Your task to perform on an android device: Clear the shopping cart on amazon. Add usb-a to usb-b to the cart on amazon Image 0: 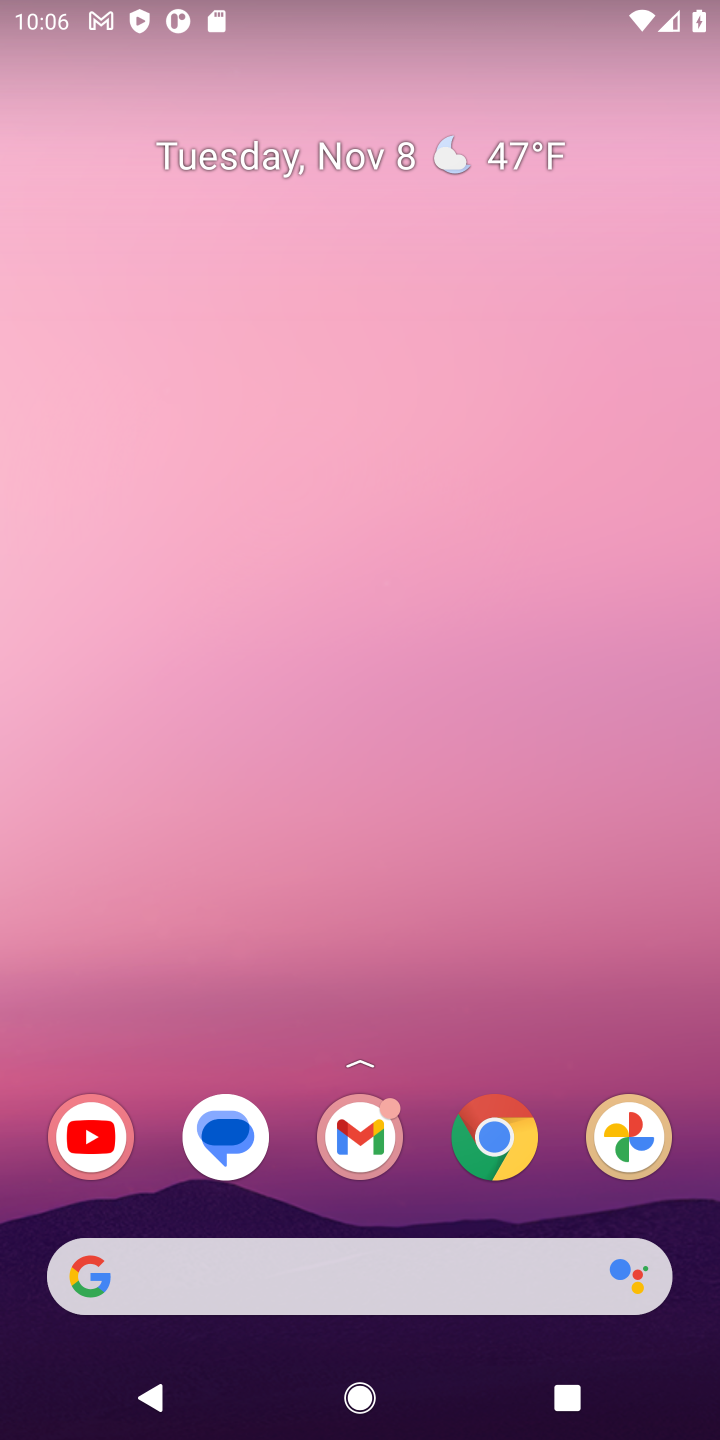
Step 0: click (495, 1138)
Your task to perform on an android device: Clear the shopping cart on amazon. Add usb-a to usb-b to the cart on amazon Image 1: 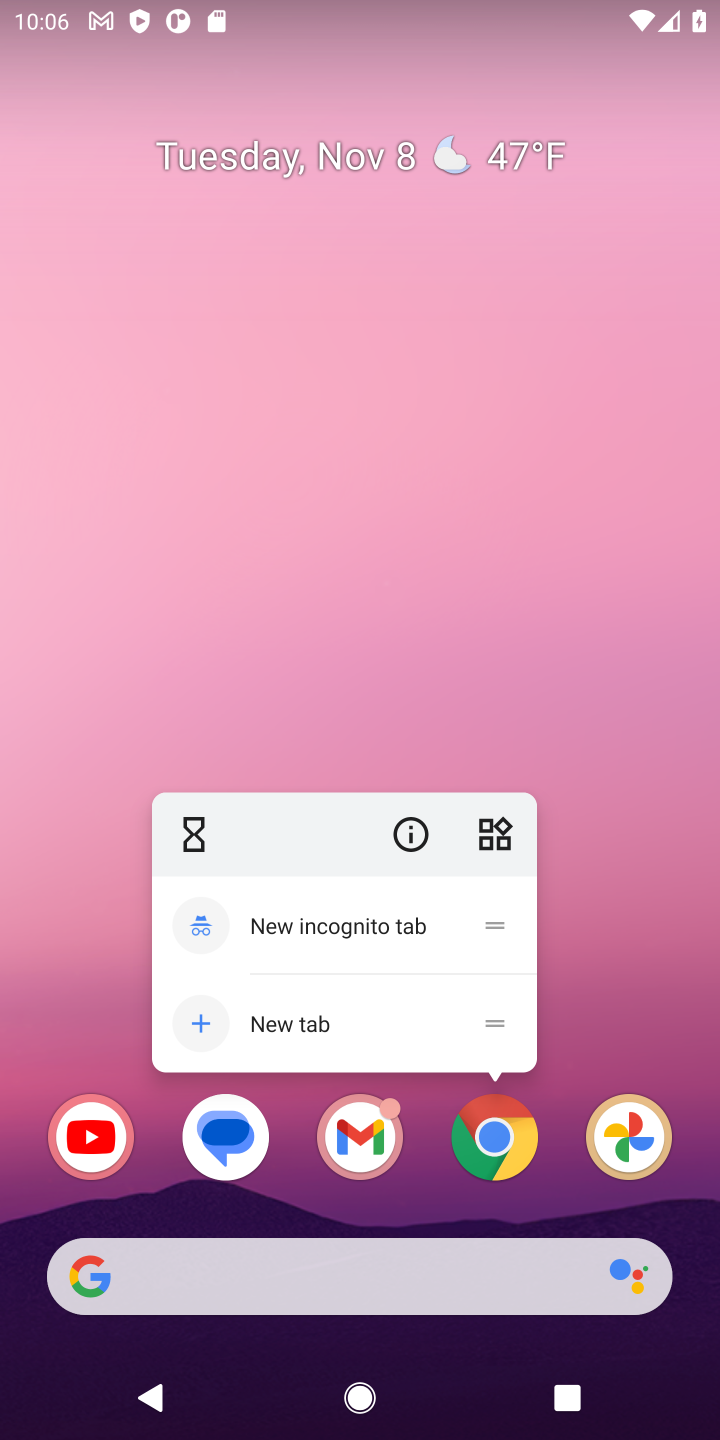
Step 1: click (495, 1138)
Your task to perform on an android device: Clear the shopping cart on amazon. Add usb-a to usb-b to the cart on amazon Image 2: 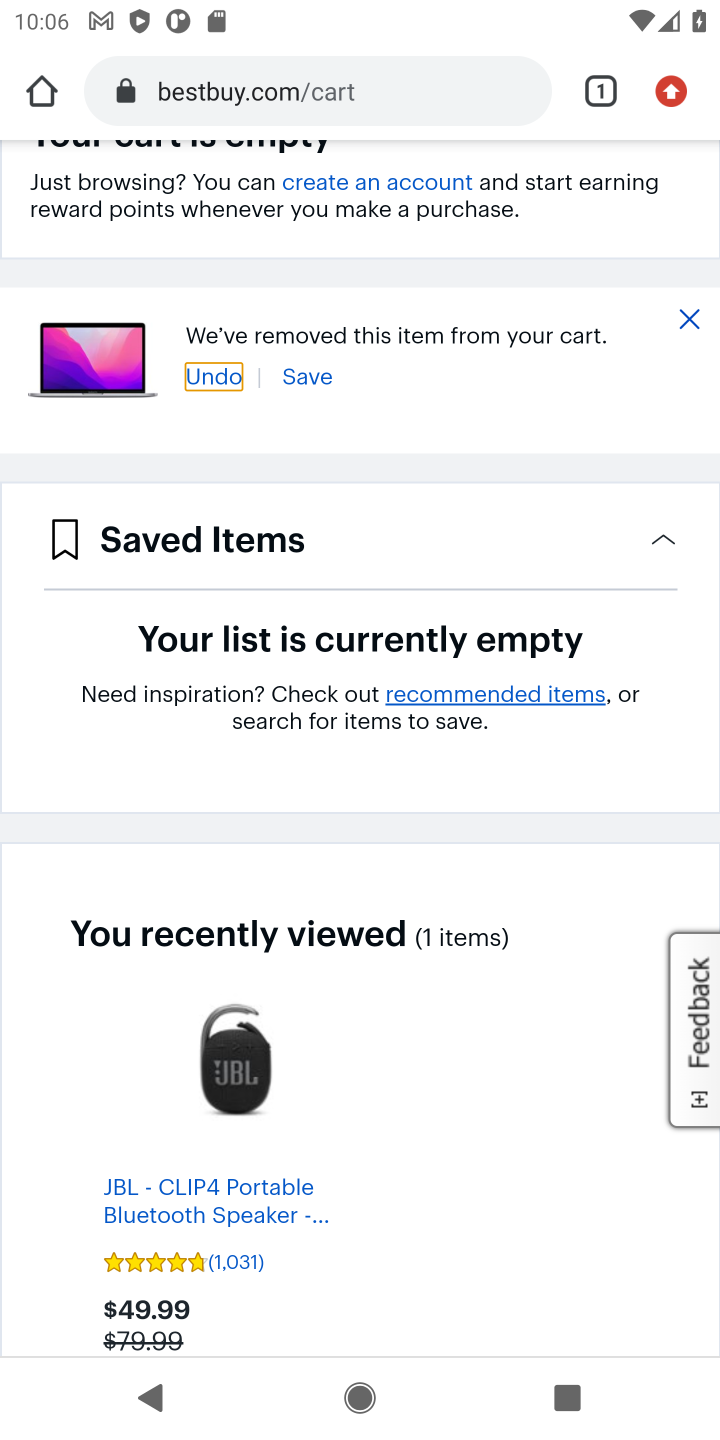
Step 2: click (380, 105)
Your task to perform on an android device: Clear the shopping cart on amazon. Add usb-a to usb-b to the cart on amazon Image 3: 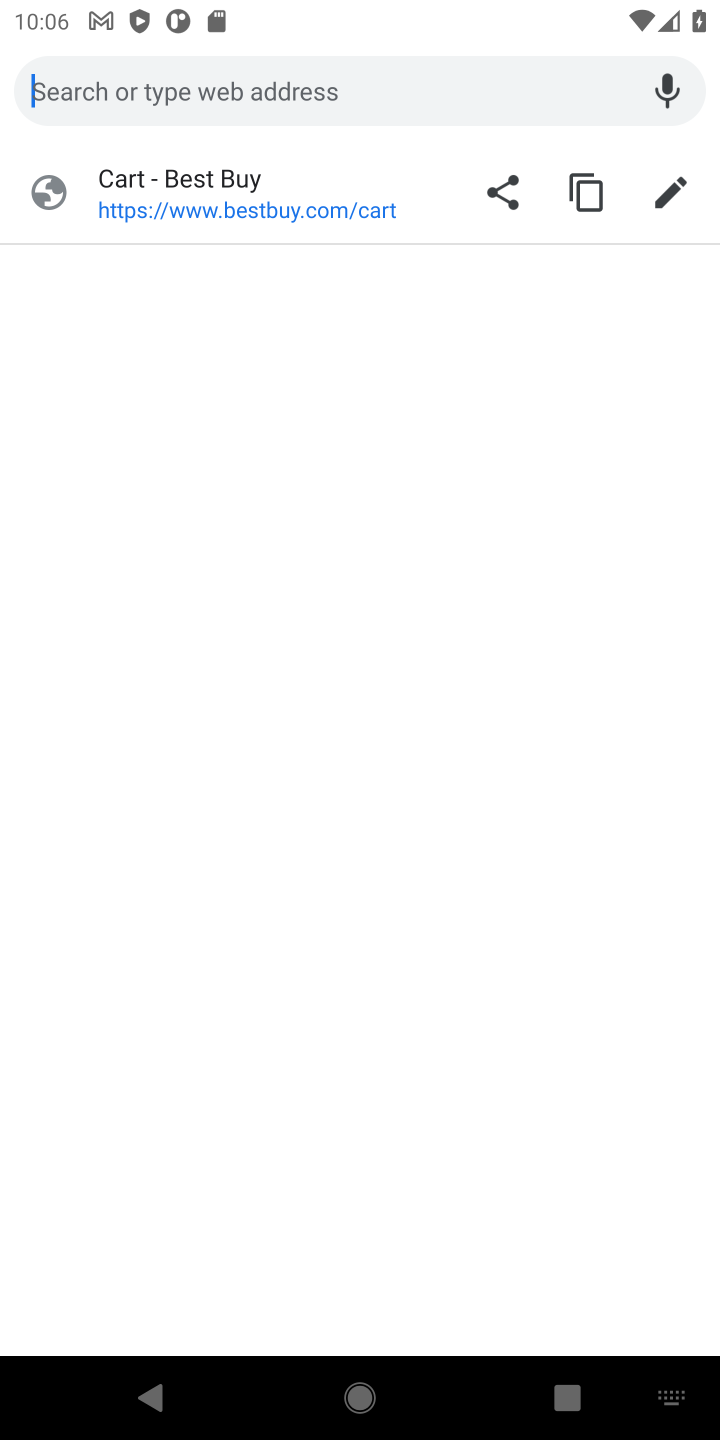
Step 3: type "amazon"
Your task to perform on an android device: Clear the shopping cart on amazon. Add usb-a to usb-b to the cart on amazon Image 4: 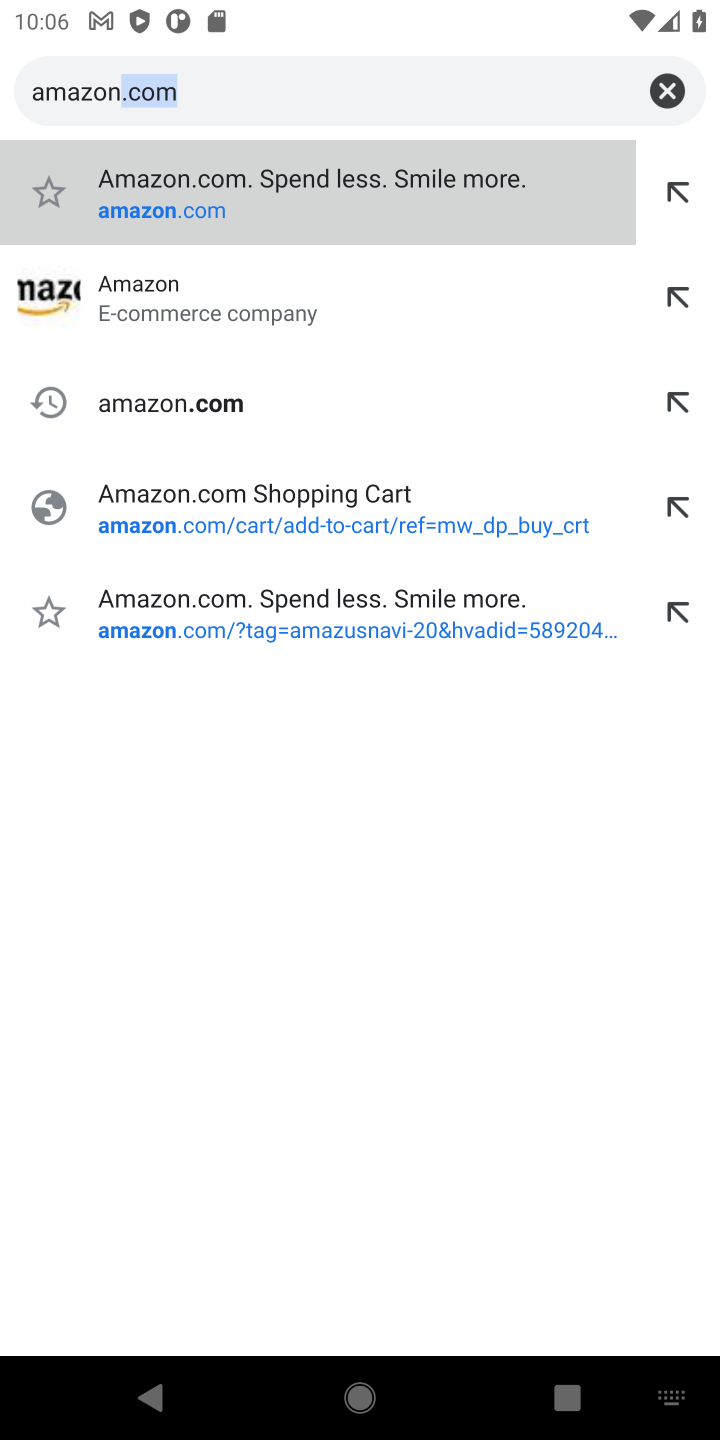
Step 4: click (196, 209)
Your task to perform on an android device: Clear the shopping cart on amazon. Add usb-a to usb-b to the cart on amazon Image 5: 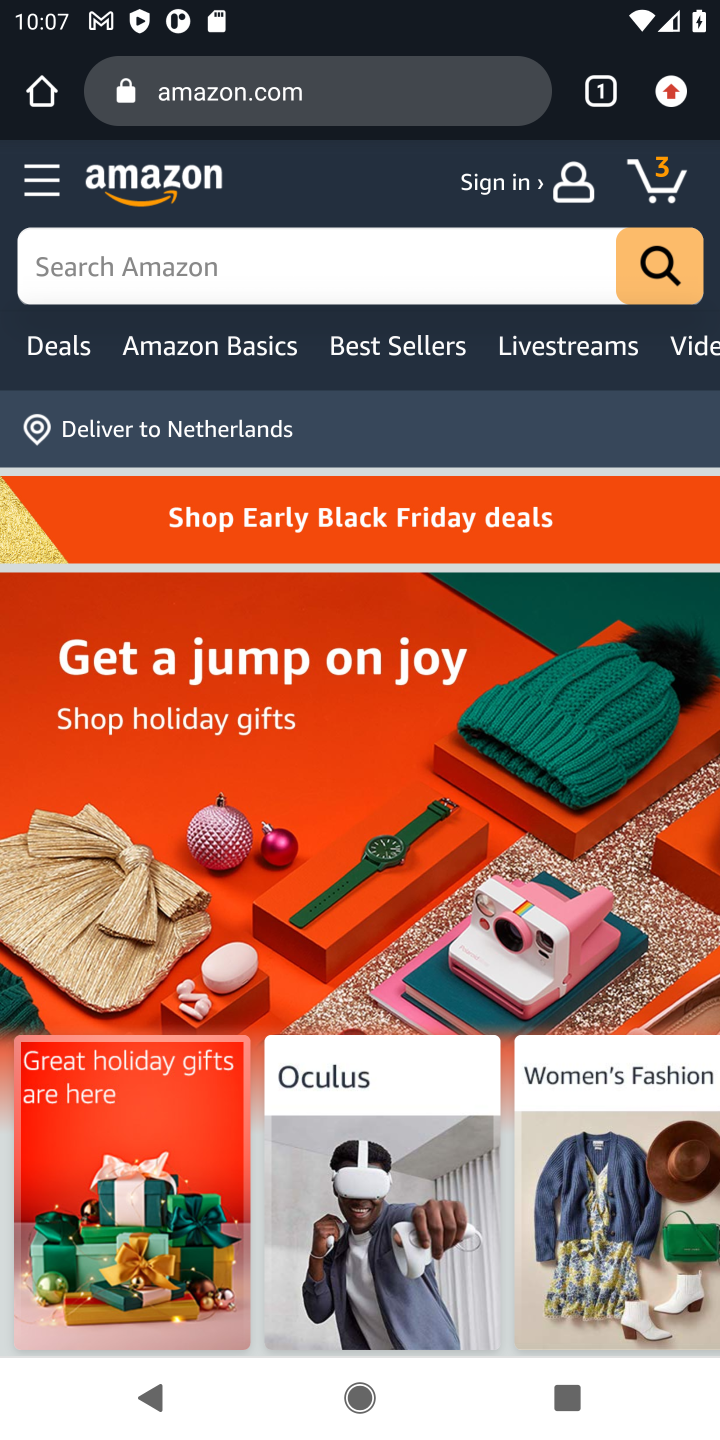
Step 5: click (660, 162)
Your task to perform on an android device: Clear the shopping cart on amazon. Add usb-a to usb-b to the cart on amazon Image 6: 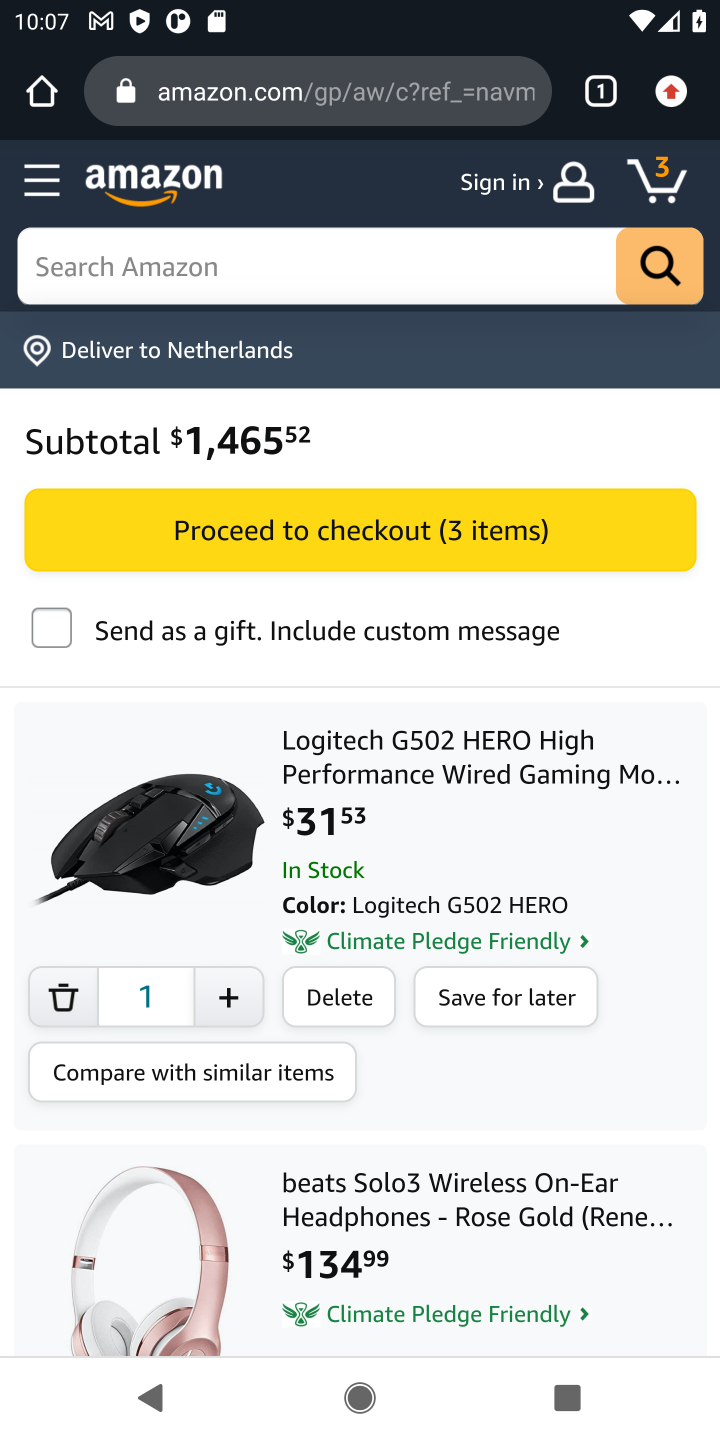
Step 6: click (338, 994)
Your task to perform on an android device: Clear the shopping cart on amazon. Add usb-a to usb-b to the cart on amazon Image 7: 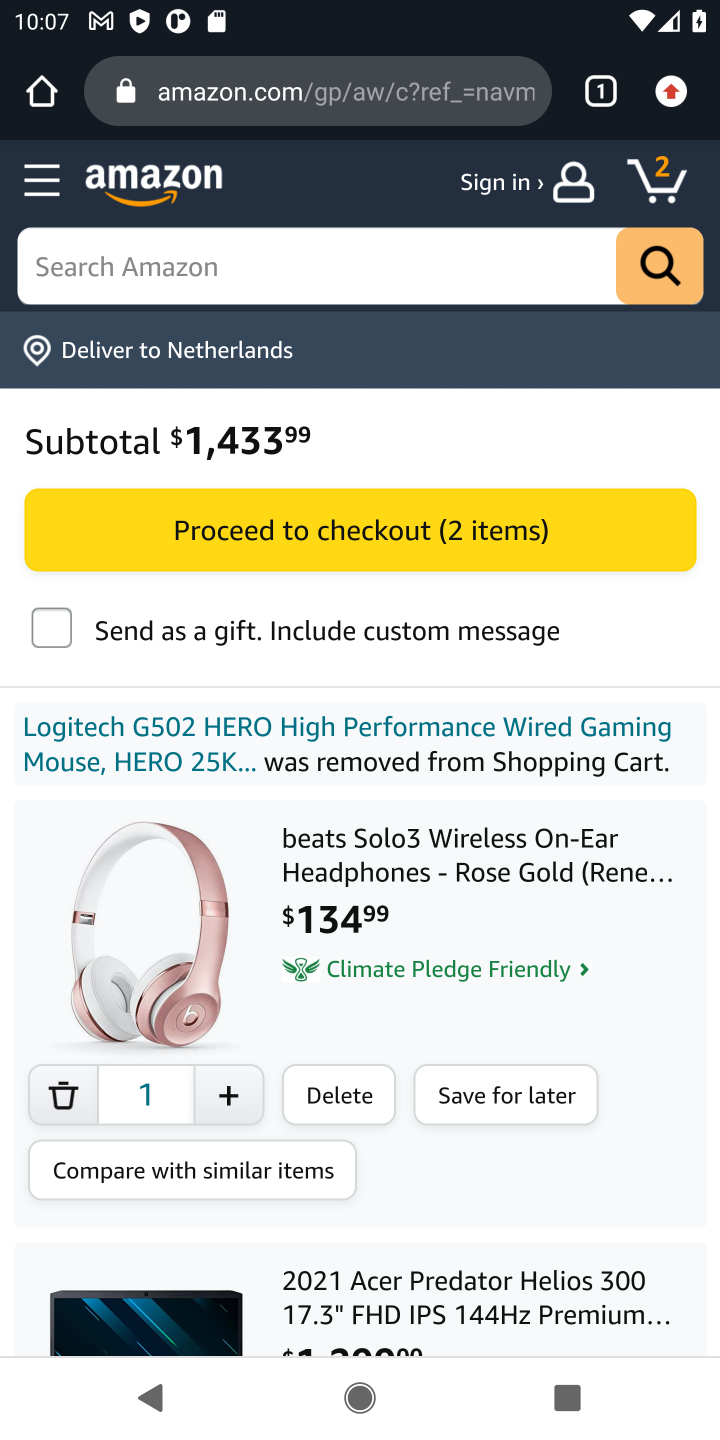
Step 7: click (344, 1088)
Your task to perform on an android device: Clear the shopping cart on amazon. Add usb-a to usb-b to the cart on amazon Image 8: 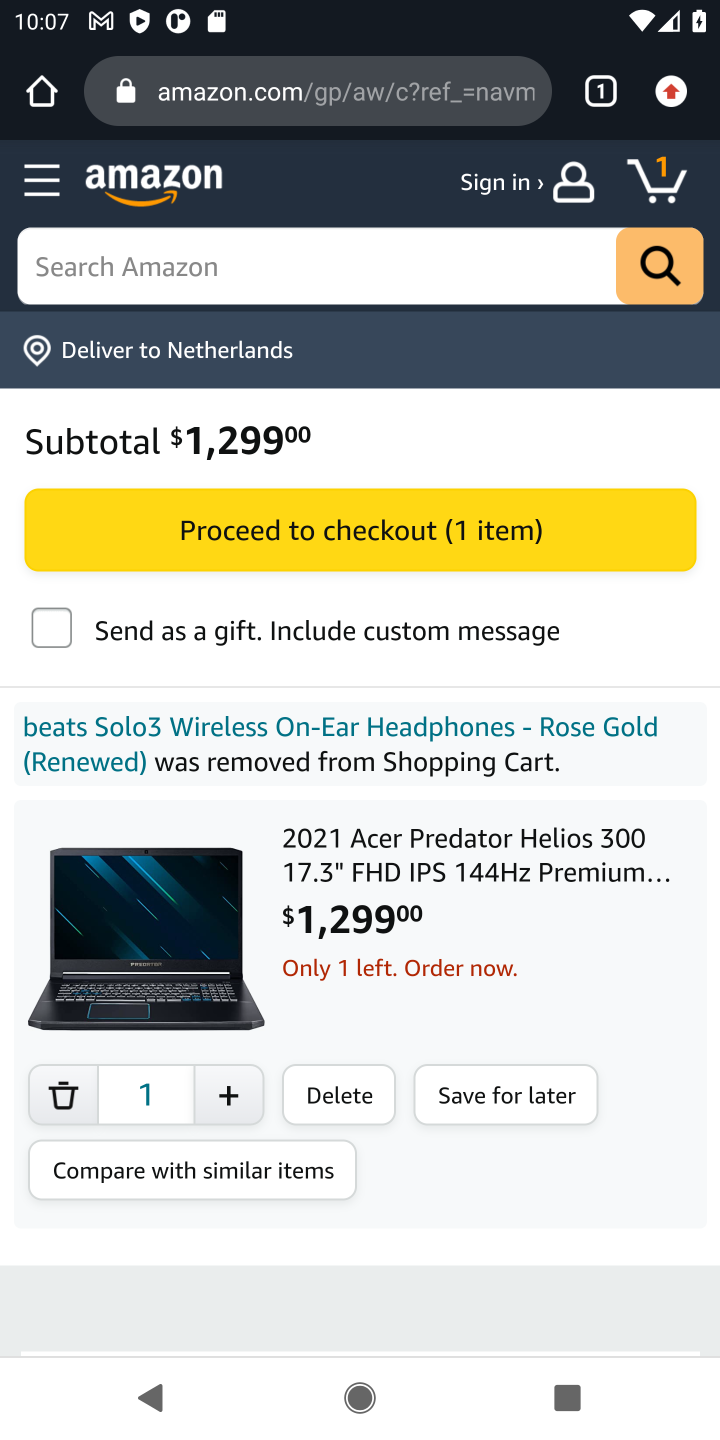
Step 8: click (344, 1088)
Your task to perform on an android device: Clear the shopping cart on amazon. Add usb-a to usb-b to the cart on amazon Image 9: 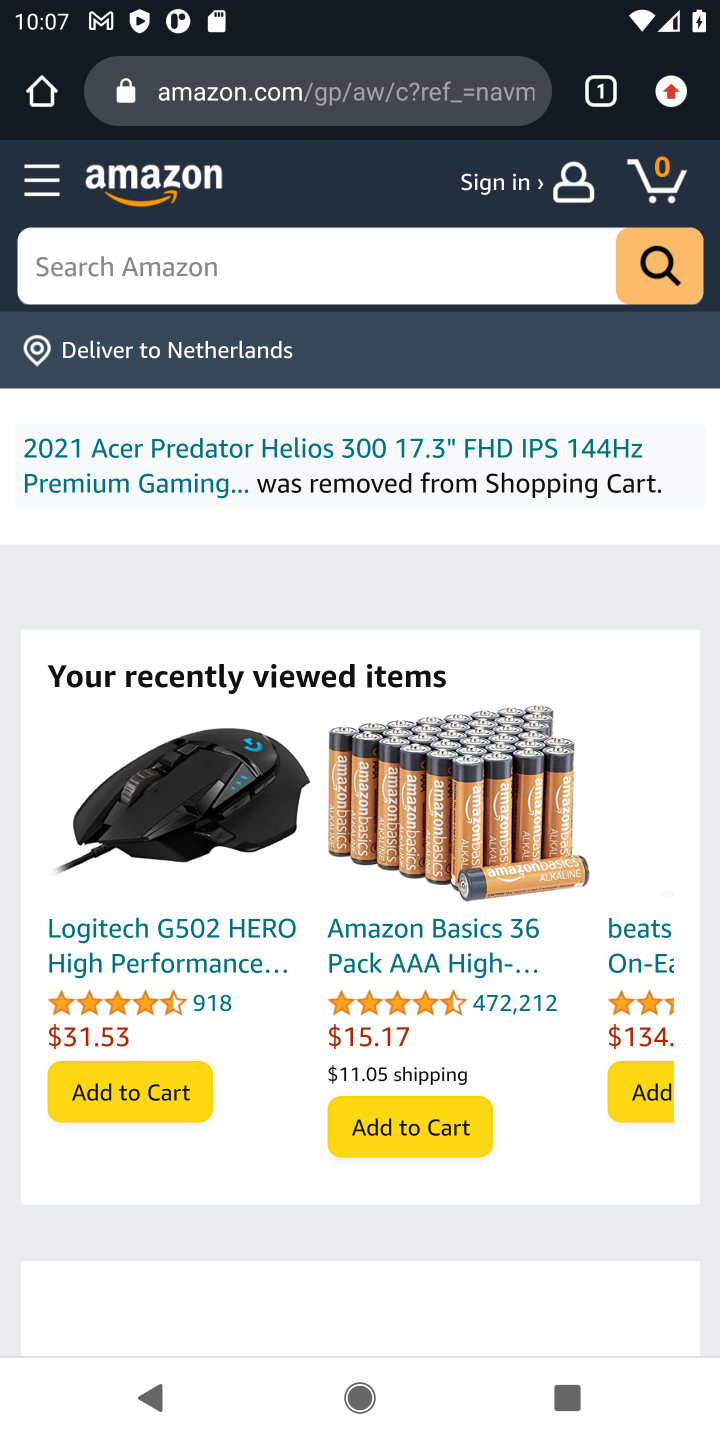
Step 9: click (359, 256)
Your task to perform on an android device: Clear the shopping cart on amazon. Add usb-a to usb-b to the cart on amazon Image 10: 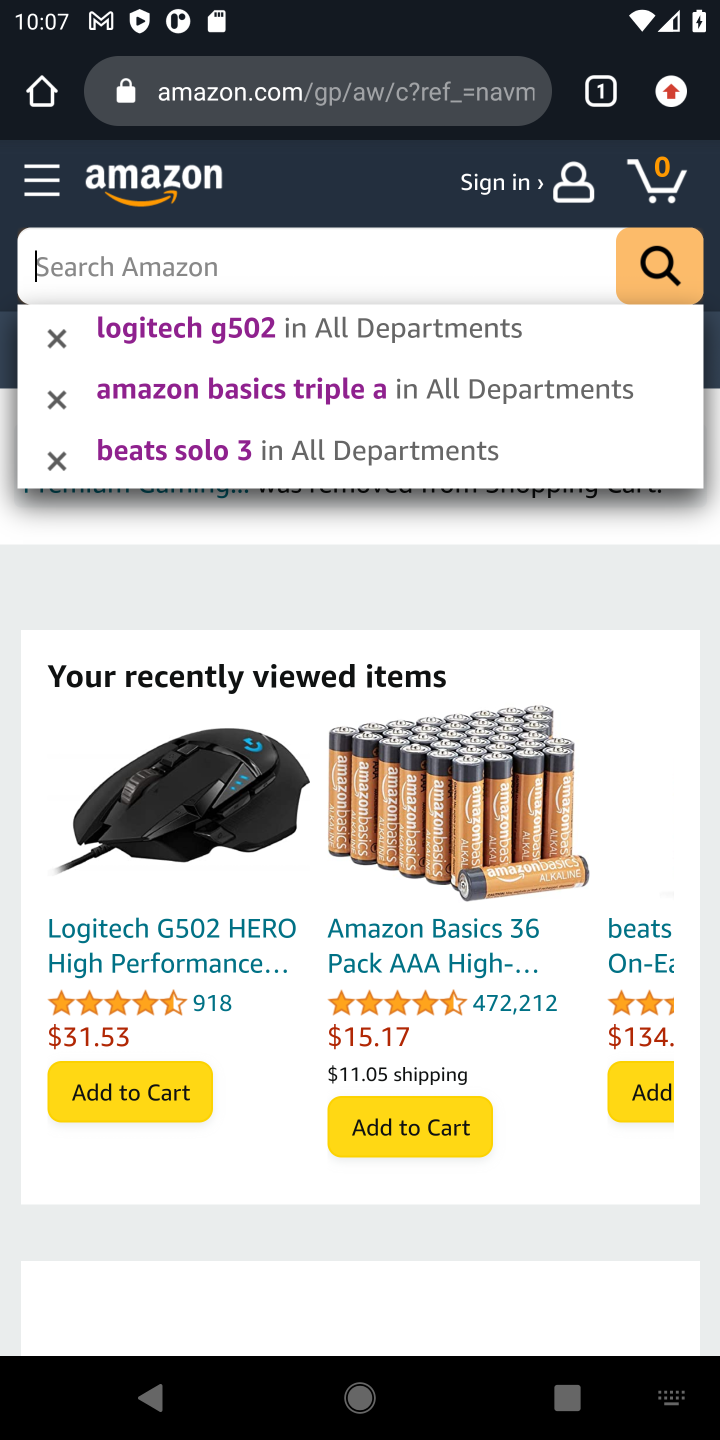
Step 10: type "usb-a to usb-b "
Your task to perform on an android device: Clear the shopping cart on amazon. Add usb-a to usb-b to the cart on amazon Image 11: 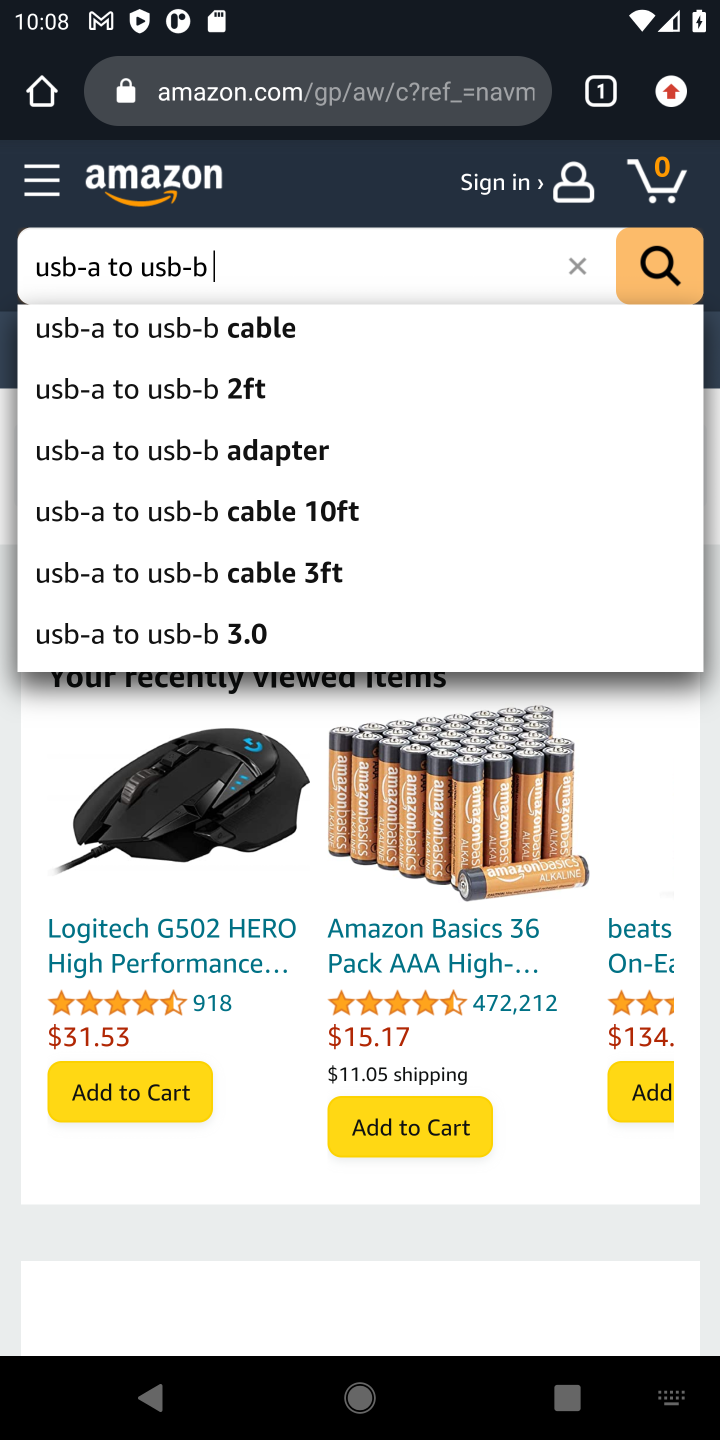
Step 11: click (672, 278)
Your task to perform on an android device: Clear the shopping cart on amazon. Add usb-a to usb-b to the cart on amazon Image 12: 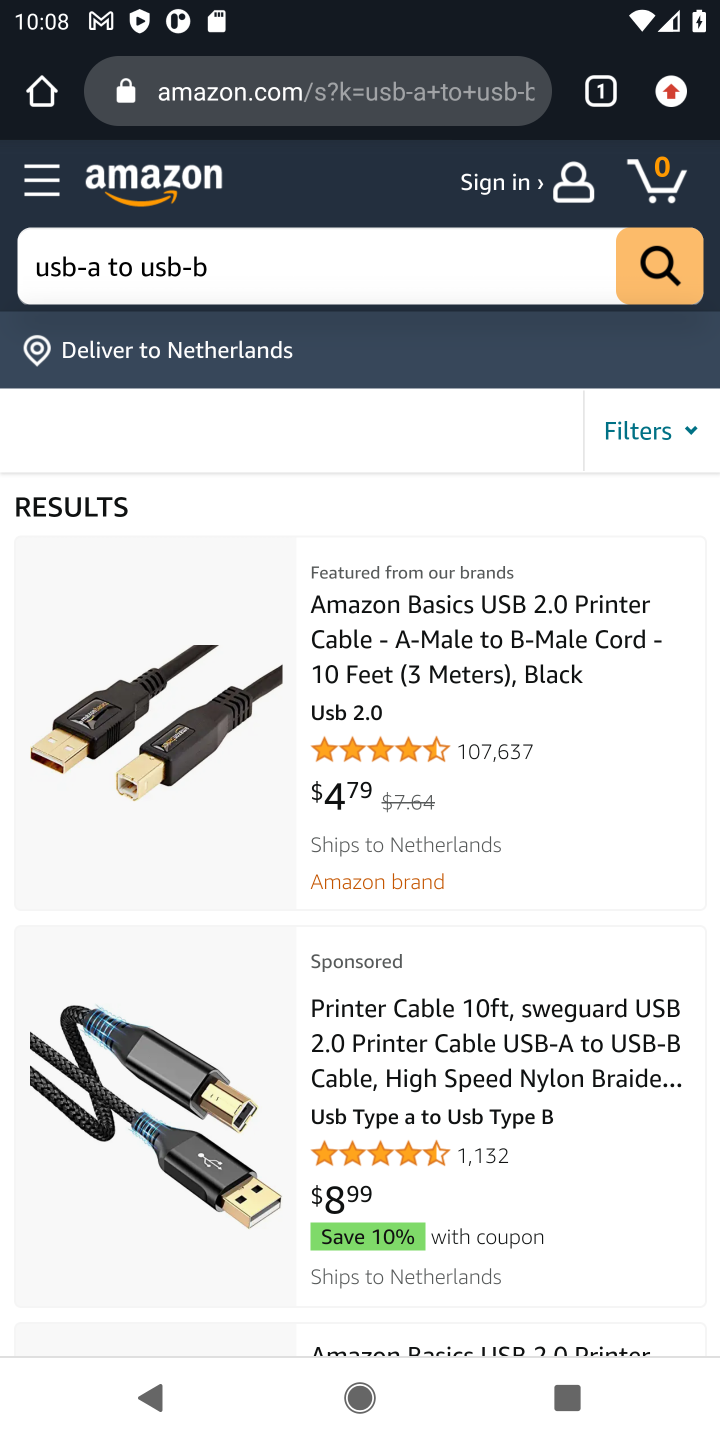
Step 12: drag from (523, 1302) to (526, 781)
Your task to perform on an android device: Clear the shopping cart on amazon. Add usb-a to usb-b to the cart on amazon Image 13: 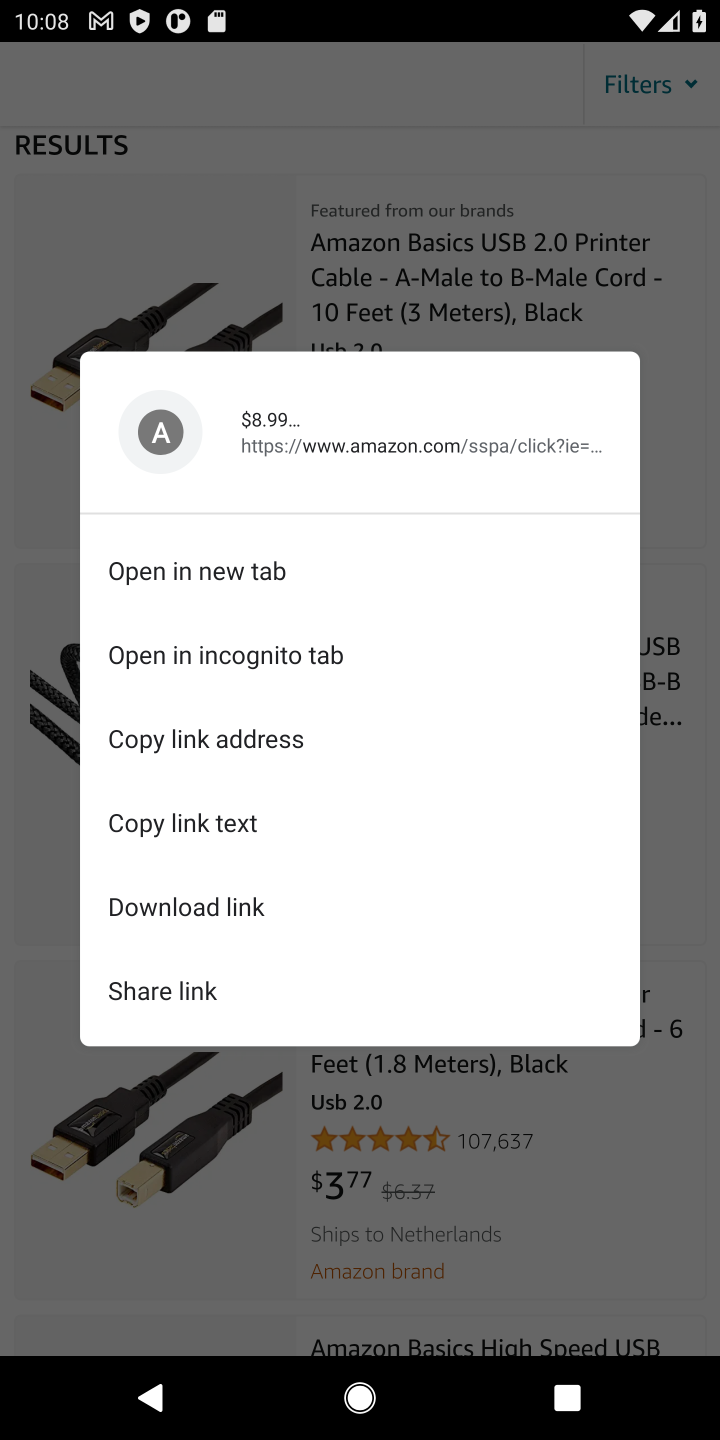
Step 13: click (609, 206)
Your task to perform on an android device: Clear the shopping cart on amazon. Add usb-a to usb-b to the cart on amazon Image 14: 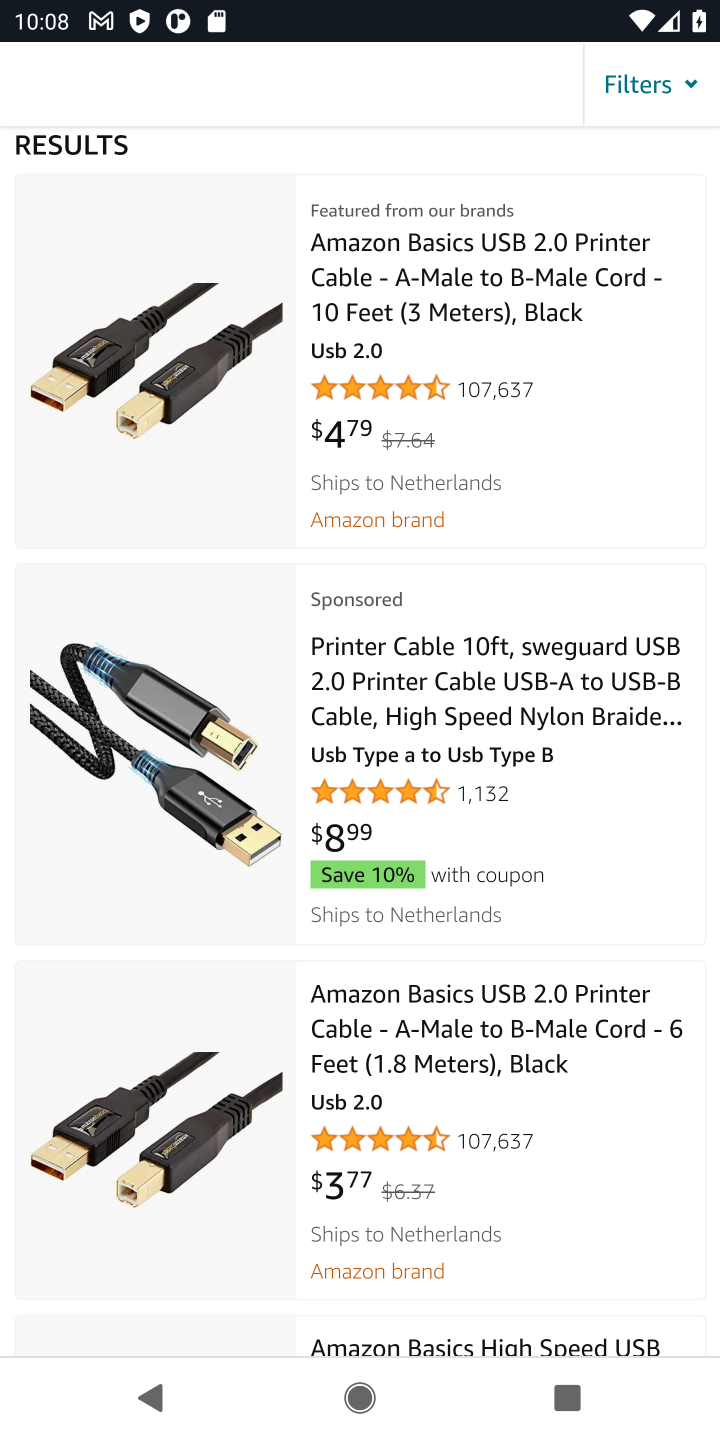
Step 14: click (479, 1046)
Your task to perform on an android device: Clear the shopping cart on amazon. Add usb-a to usb-b to the cart on amazon Image 15: 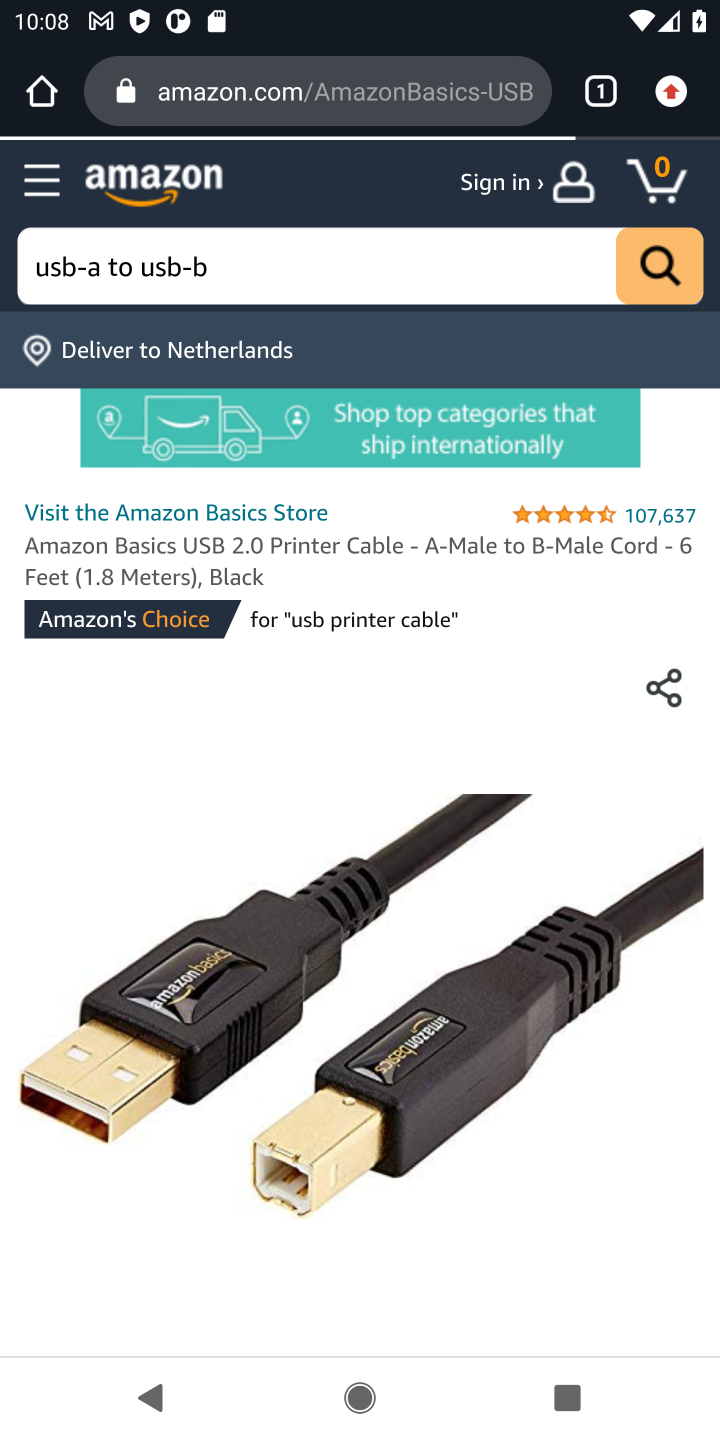
Step 15: drag from (440, 1216) to (420, 668)
Your task to perform on an android device: Clear the shopping cart on amazon. Add usb-a to usb-b to the cart on amazon Image 16: 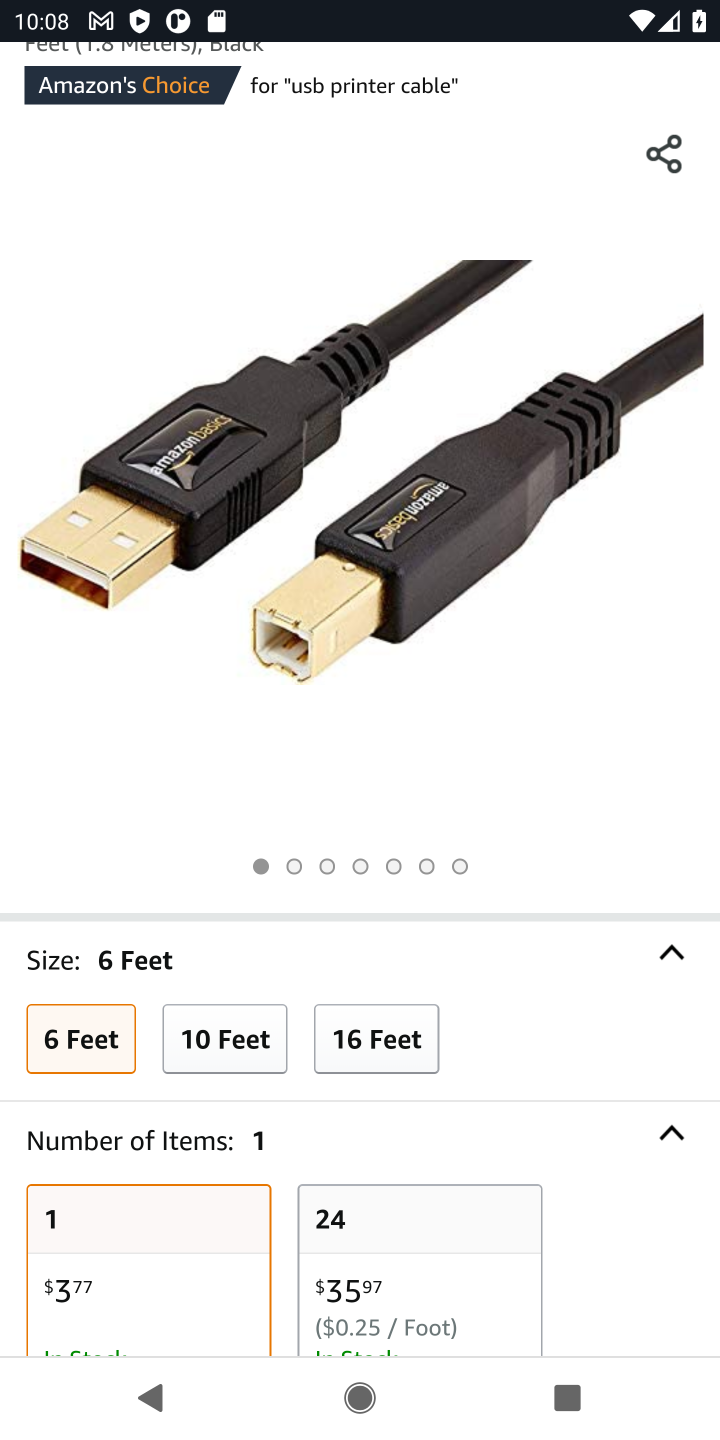
Step 16: drag from (498, 844) to (384, 166)
Your task to perform on an android device: Clear the shopping cart on amazon. Add usb-a to usb-b to the cart on amazon Image 17: 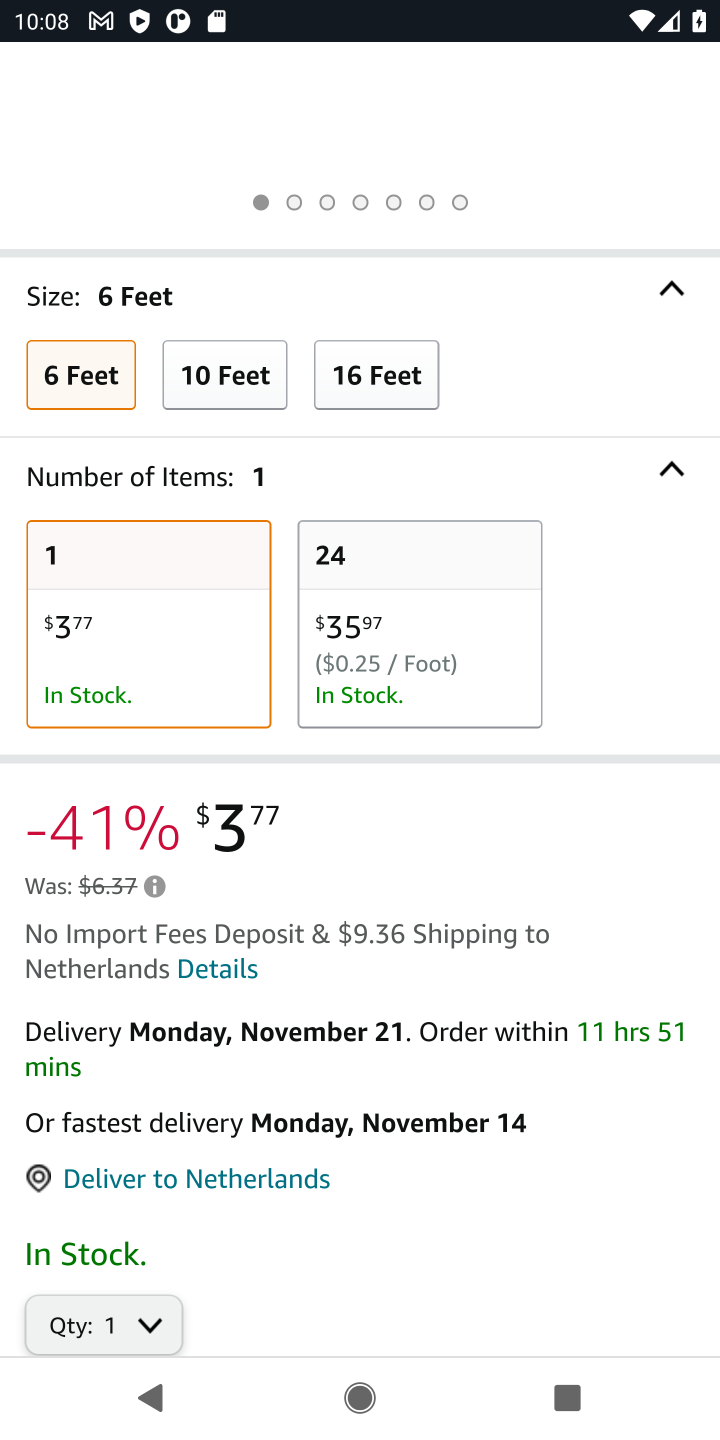
Step 17: drag from (384, 1077) to (348, 424)
Your task to perform on an android device: Clear the shopping cart on amazon. Add usb-a to usb-b to the cart on amazon Image 18: 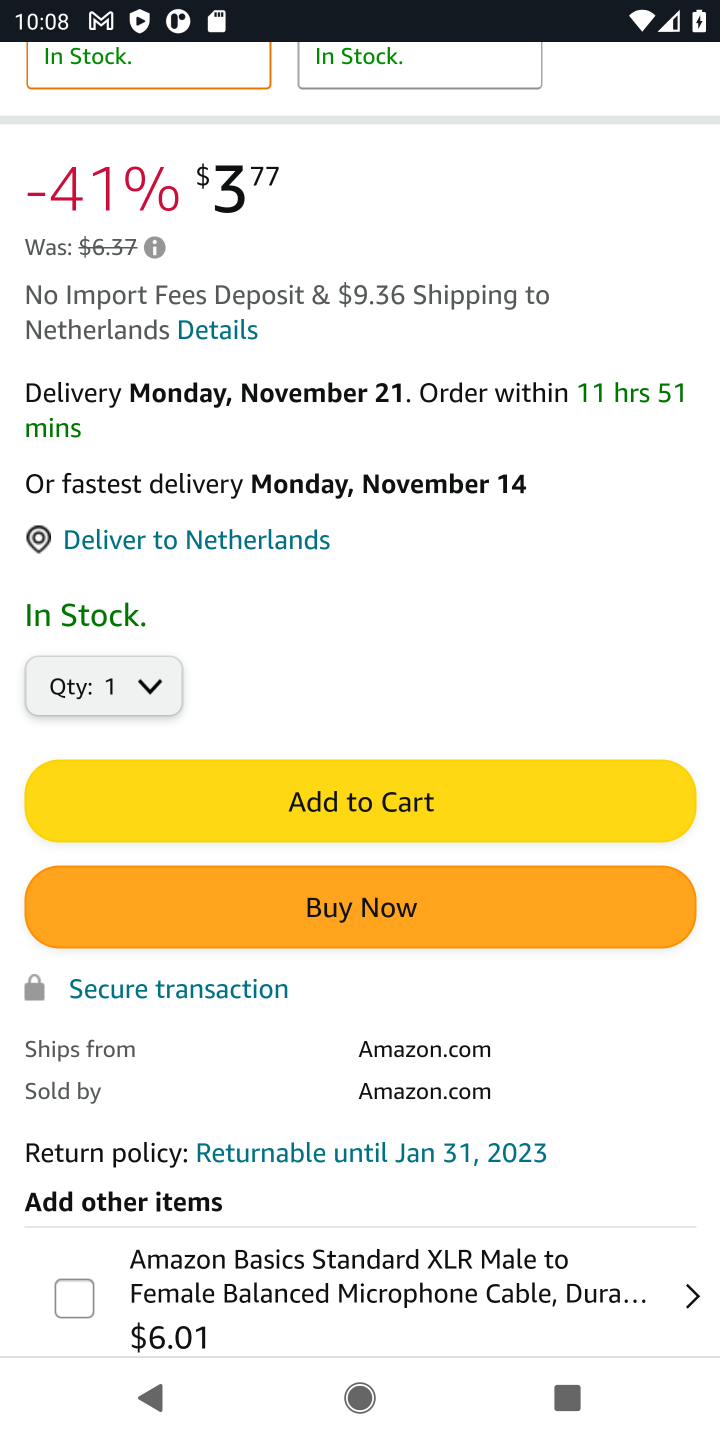
Step 18: click (374, 816)
Your task to perform on an android device: Clear the shopping cart on amazon. Add usb-a to usb-b to the cart on amazon Image 19: 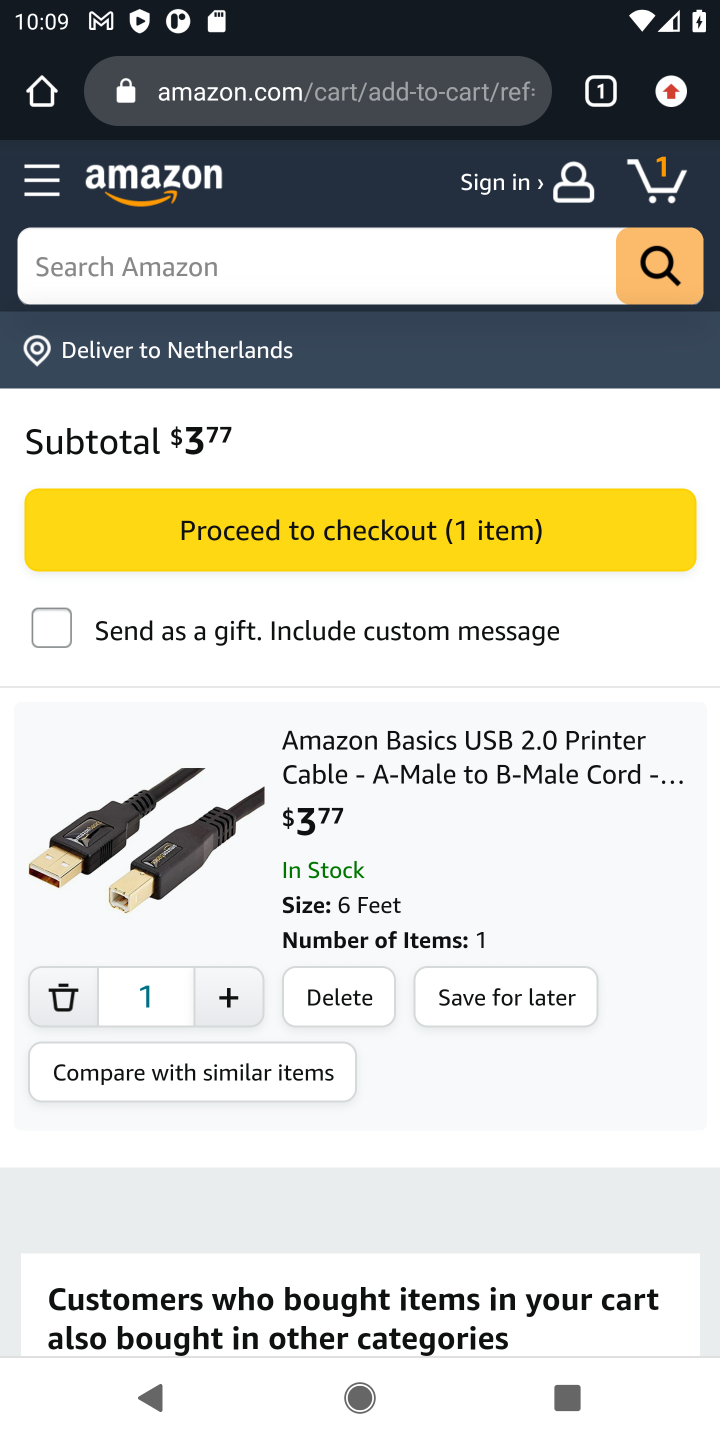
Step 19: task complete